Your task to perform on an android device: set the timer Image 0: 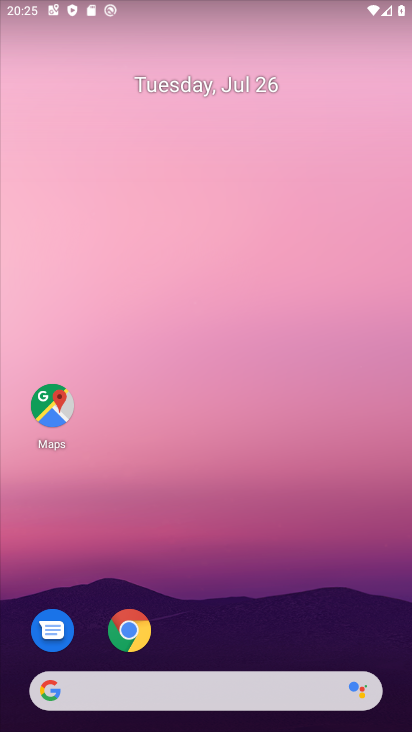
Step 0: press home button
Your task to perform on an android device: set the timer Image 1: 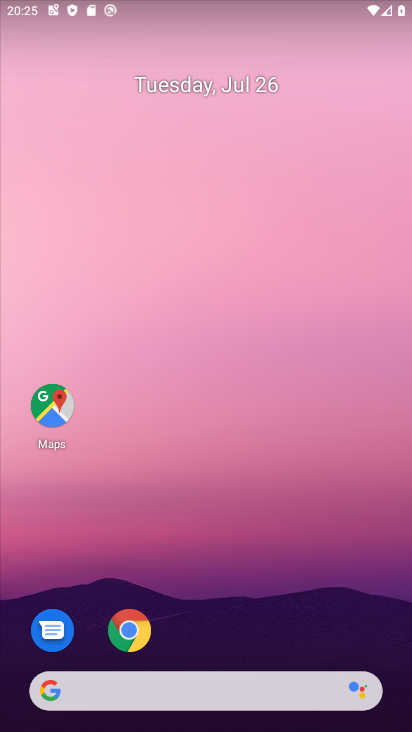
Step 1: drag from (370, 612) to (341, 232)
Your task to perform on an android device: set the timer Image 2: 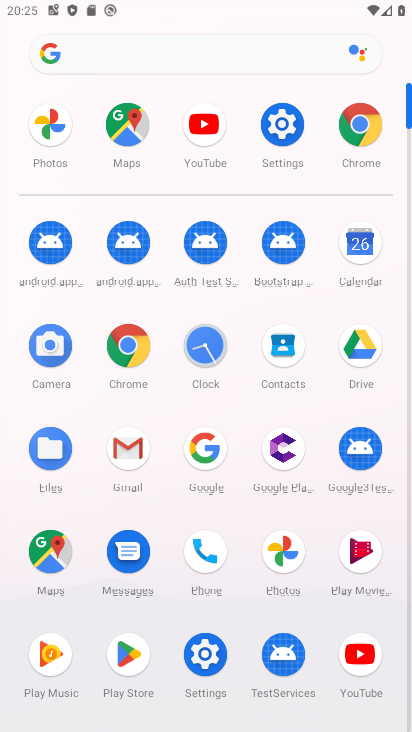
Step 2: click (198, 349)
Your task to perform on an android device: set the timer Image 3: 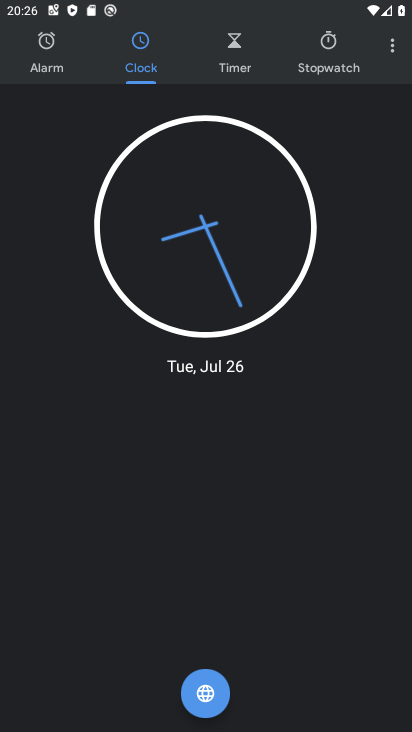
Step 3: click (43, 66)
Your task to perform on an android device: set the timer Image 4: 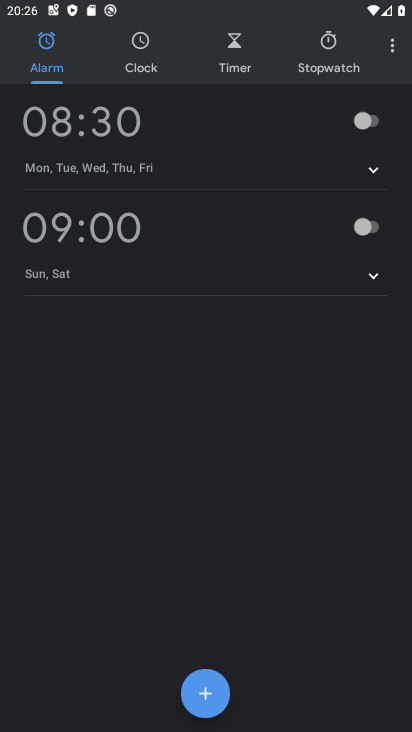
Step 4: click (210, 698)
Your task to perform on an android device: set the timer Image 5: 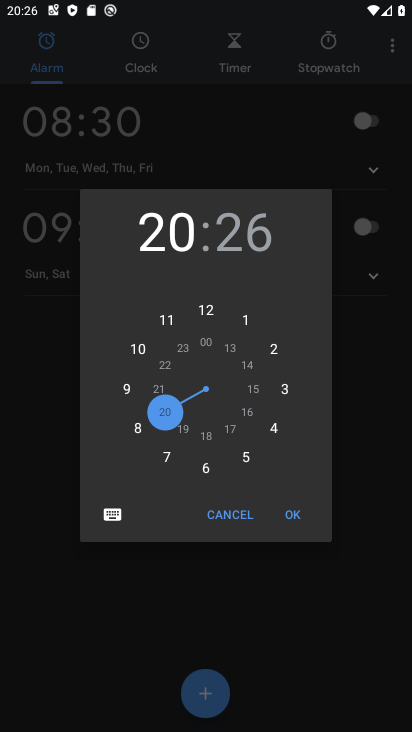
Step 5: click (294, 515)
Your task to perform on an android device: set the timer Image 6: 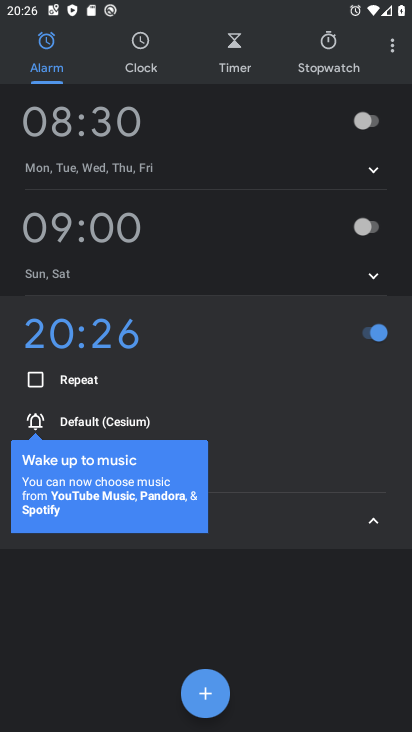
Step 6: task complete